Your task to perform on an android device: Add razer deathadder to the cart on costco, then select checkout. Image 0: 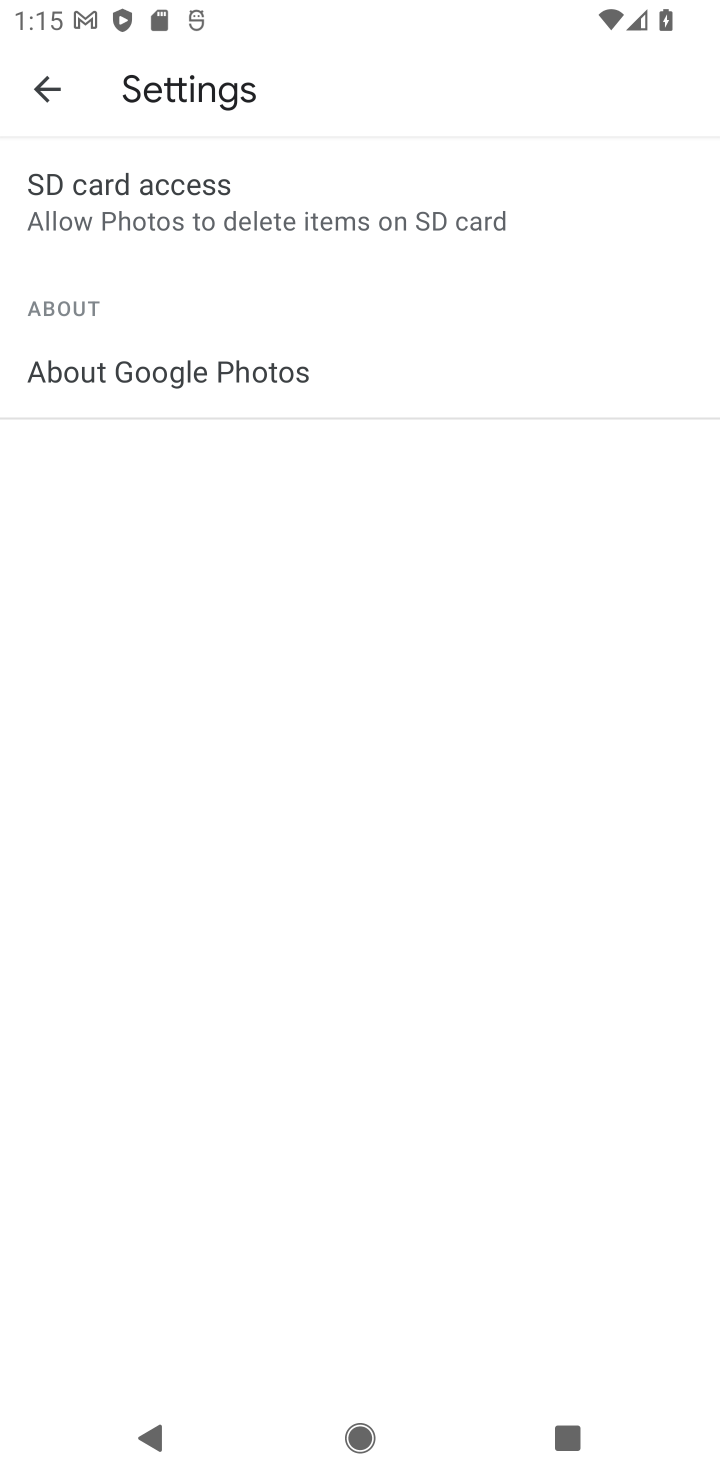
Step 0: press home button
Your task to perform on an android device: Add razer deathadder to the cart on costco, then select checkout. Image 1: 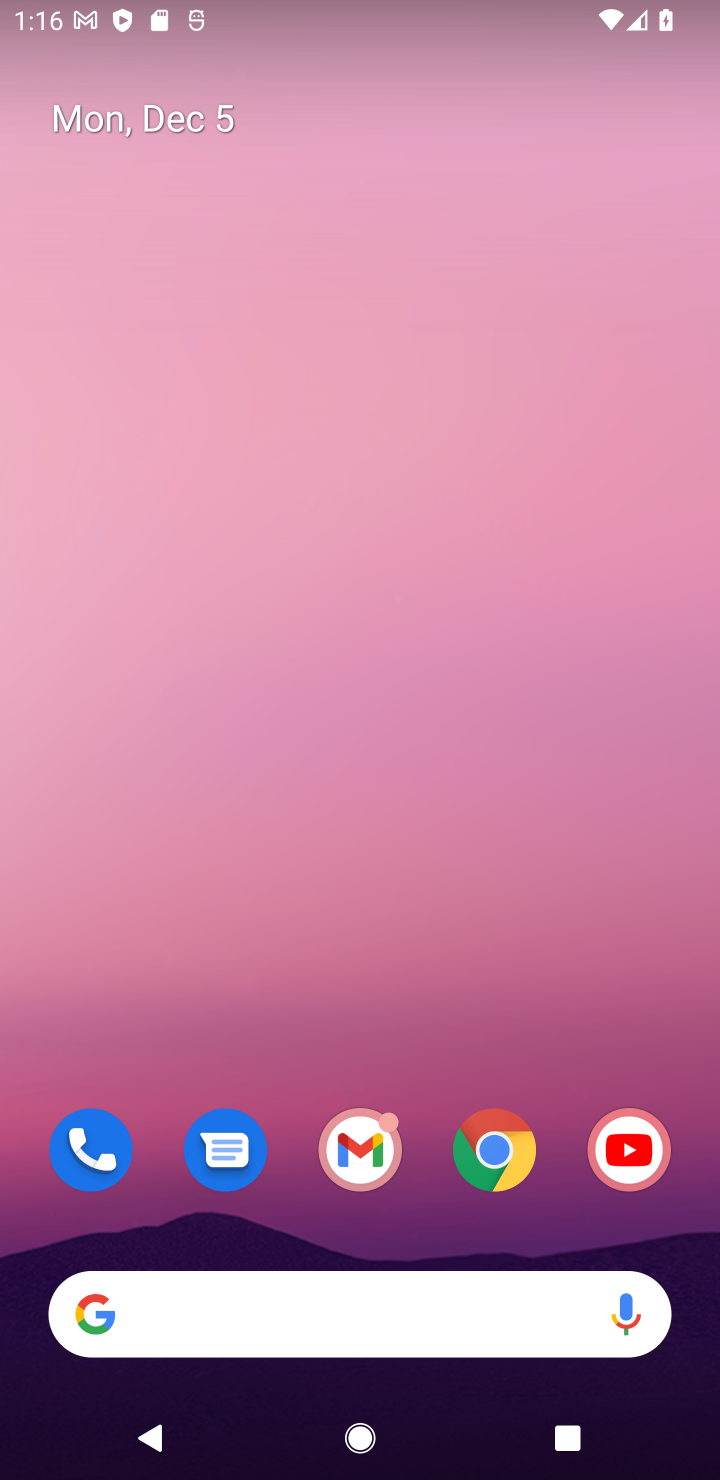
Step 1: click (496, 1138)
Your task to perform on an android device: Add razer deathadder to the cart on costco, then select checkout. Image 2: 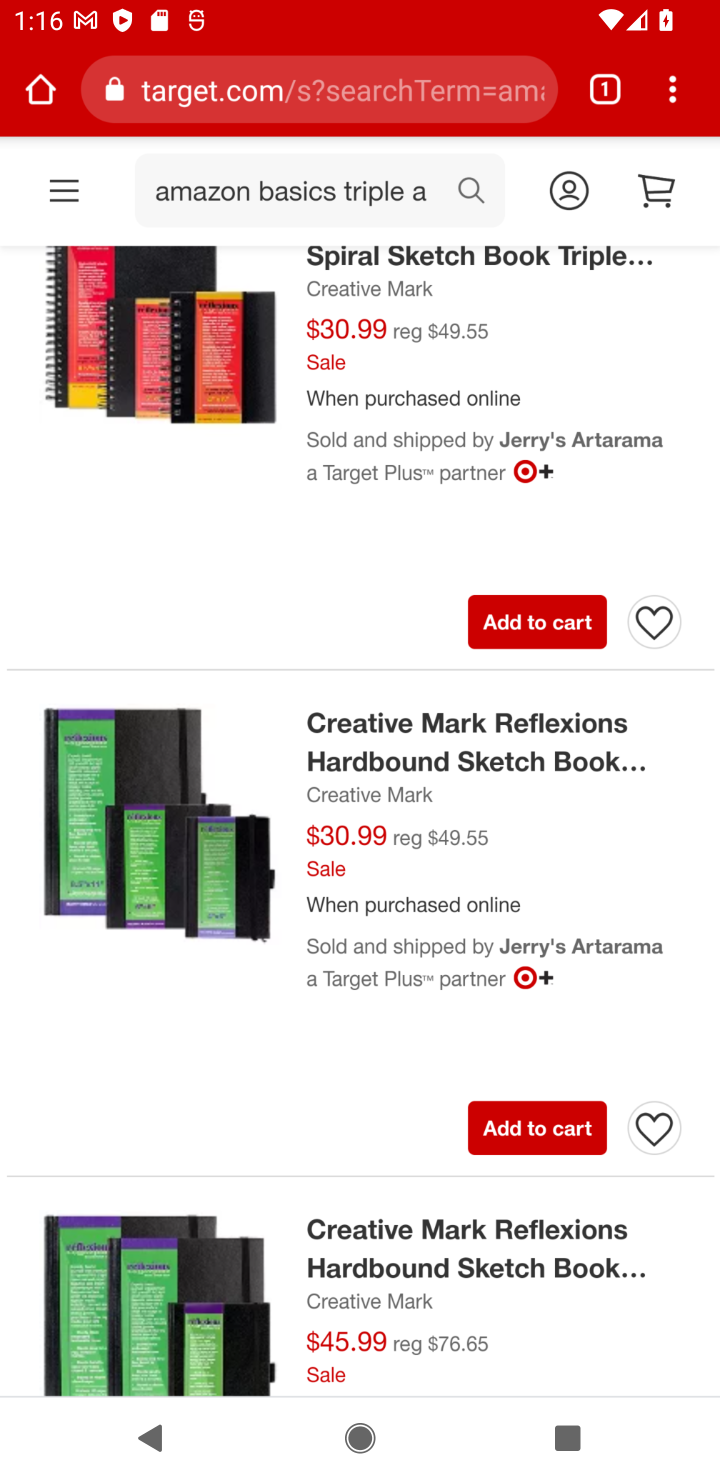
Step 2: click (501, 1154)
Your task to perform on an android device: Add razer deathadder to the cart on costco, then select checkout. Image 3: 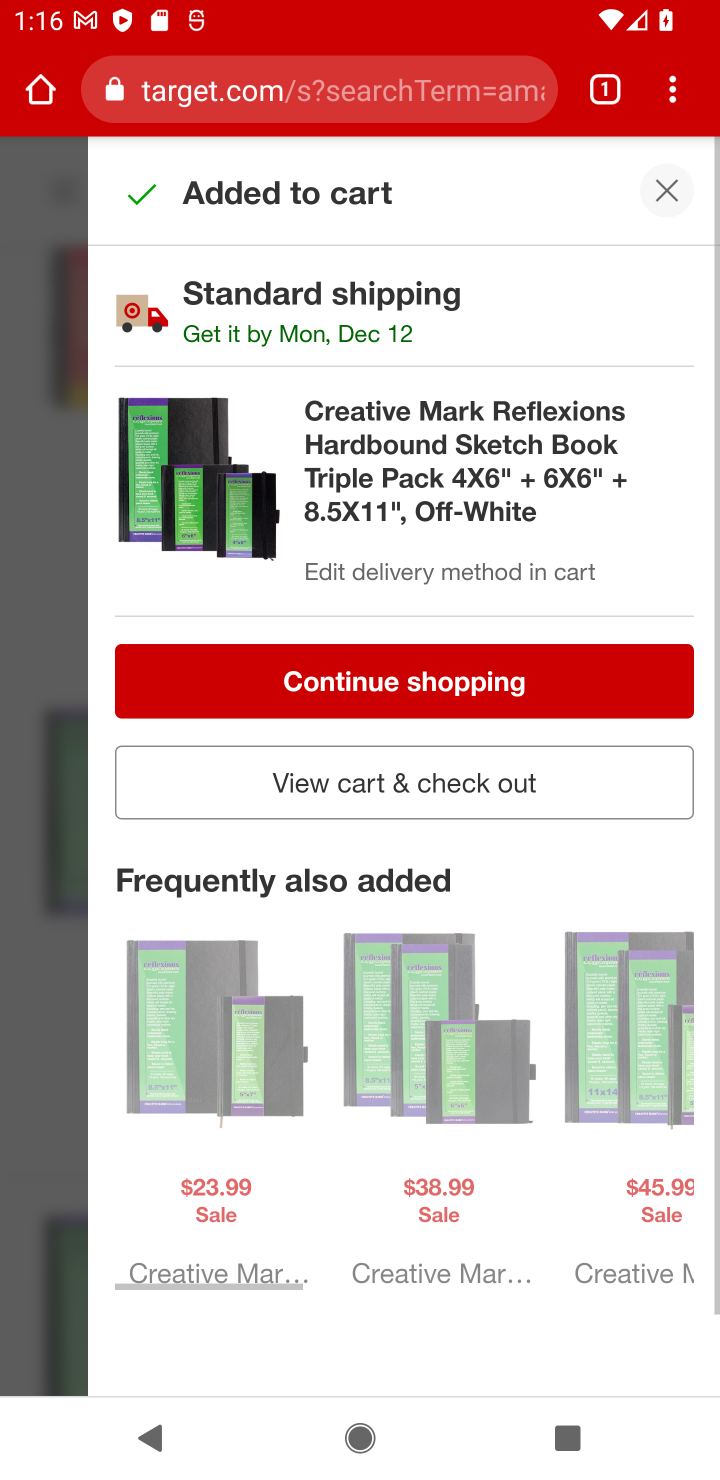
Step 3: click (640, 183)
Your task to perform on an android device: Add razer deathadder to the cart on costco, then select checkout. Image 4: 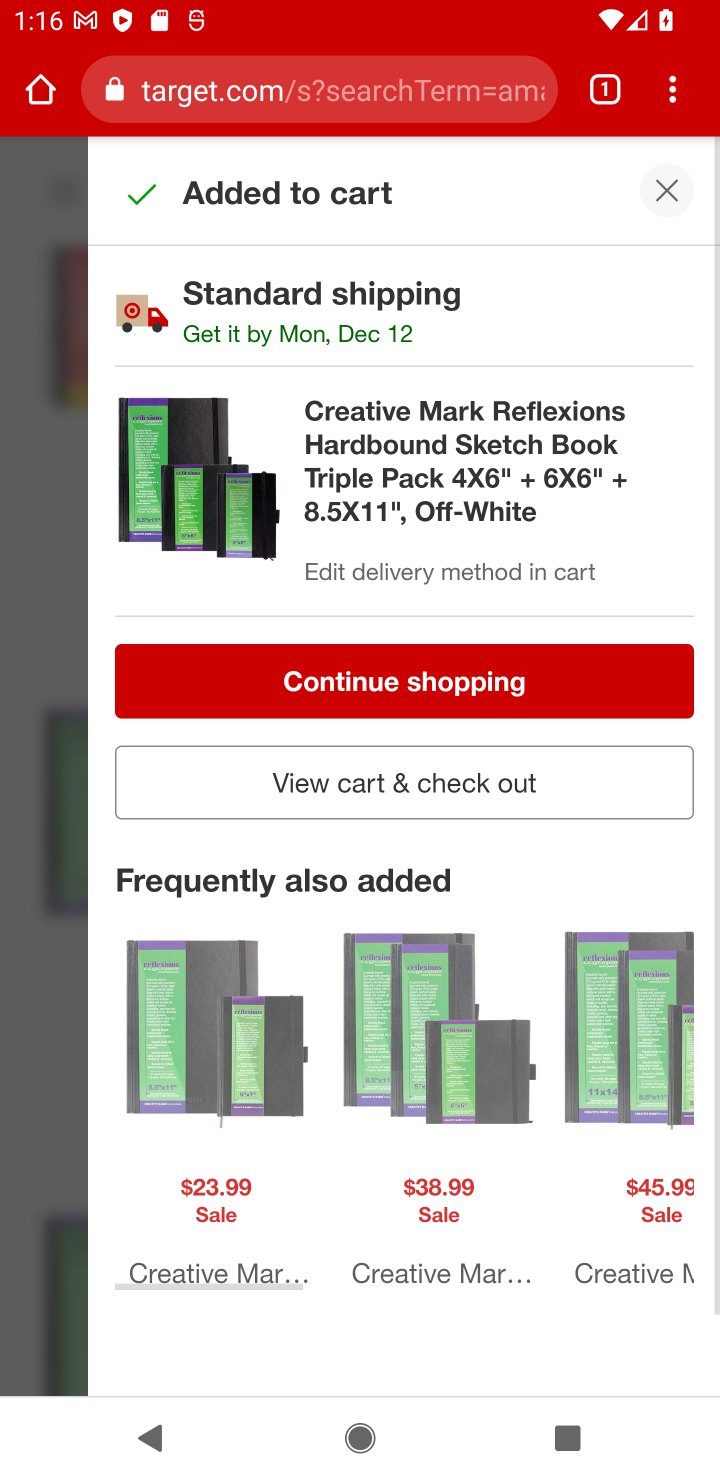
Step 4: click (306, 88)
Your task to perform on an android device: Add razer deathadder to the cart on costco, then select checkout. Image 5: 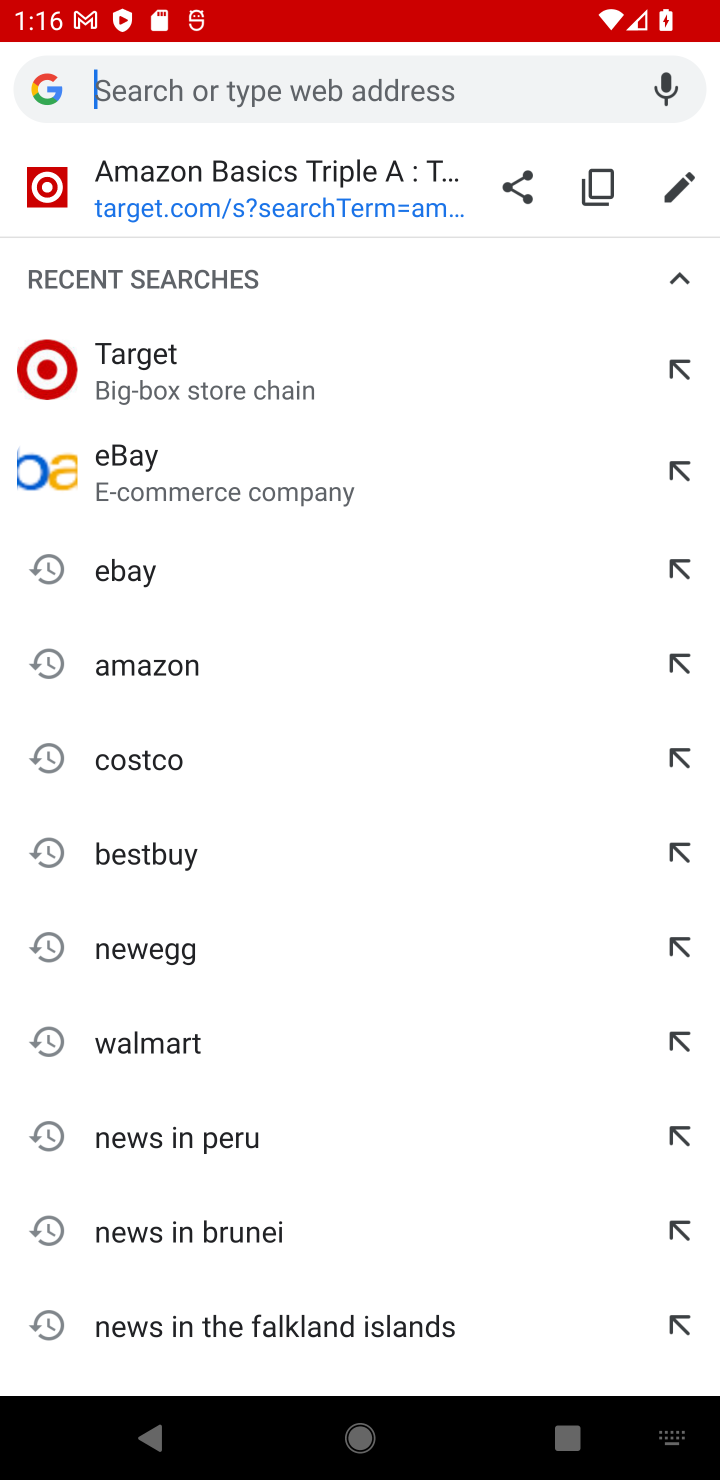
Step 5: click (169, 763)
Your task to perform on an android device: Add razer deathadder to the cart on costco, then select checkout. Image 6: 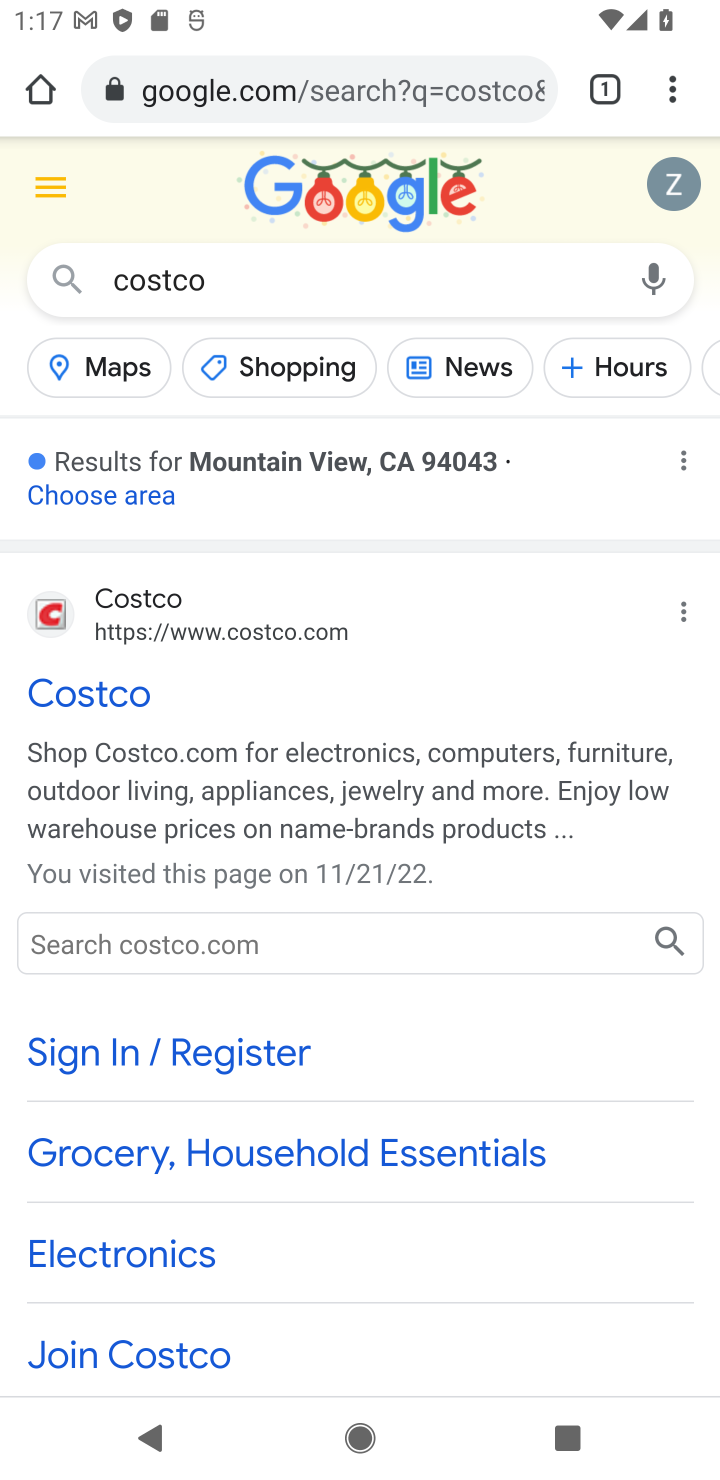
Step 6: click (229, 625)
Your task to perform on an android device: Add razer deathadder to the cart on costco, then select checkout. Image 7: 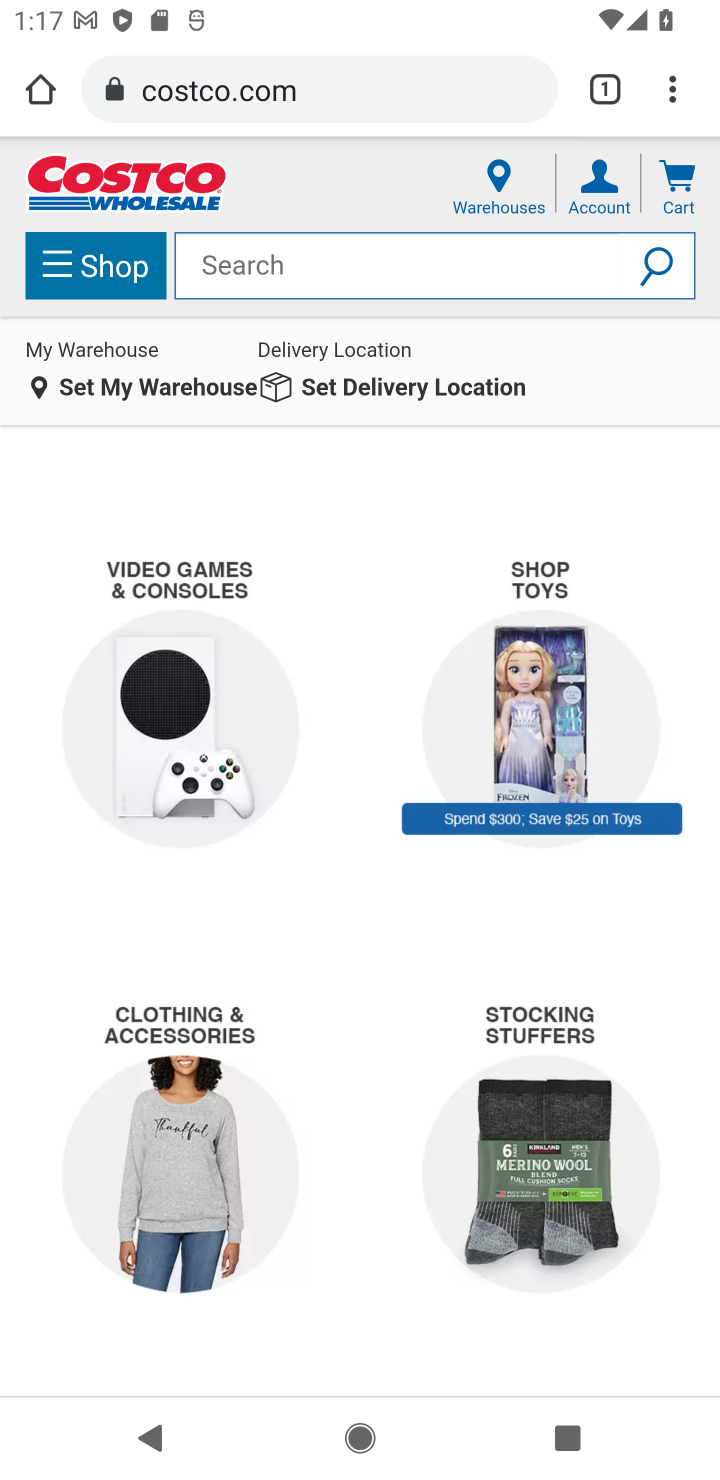
Step 7: click (456, 253)
Your task to perform on an android device: Add razer deathadder to the cart on costco, then select checkout. Image 8: 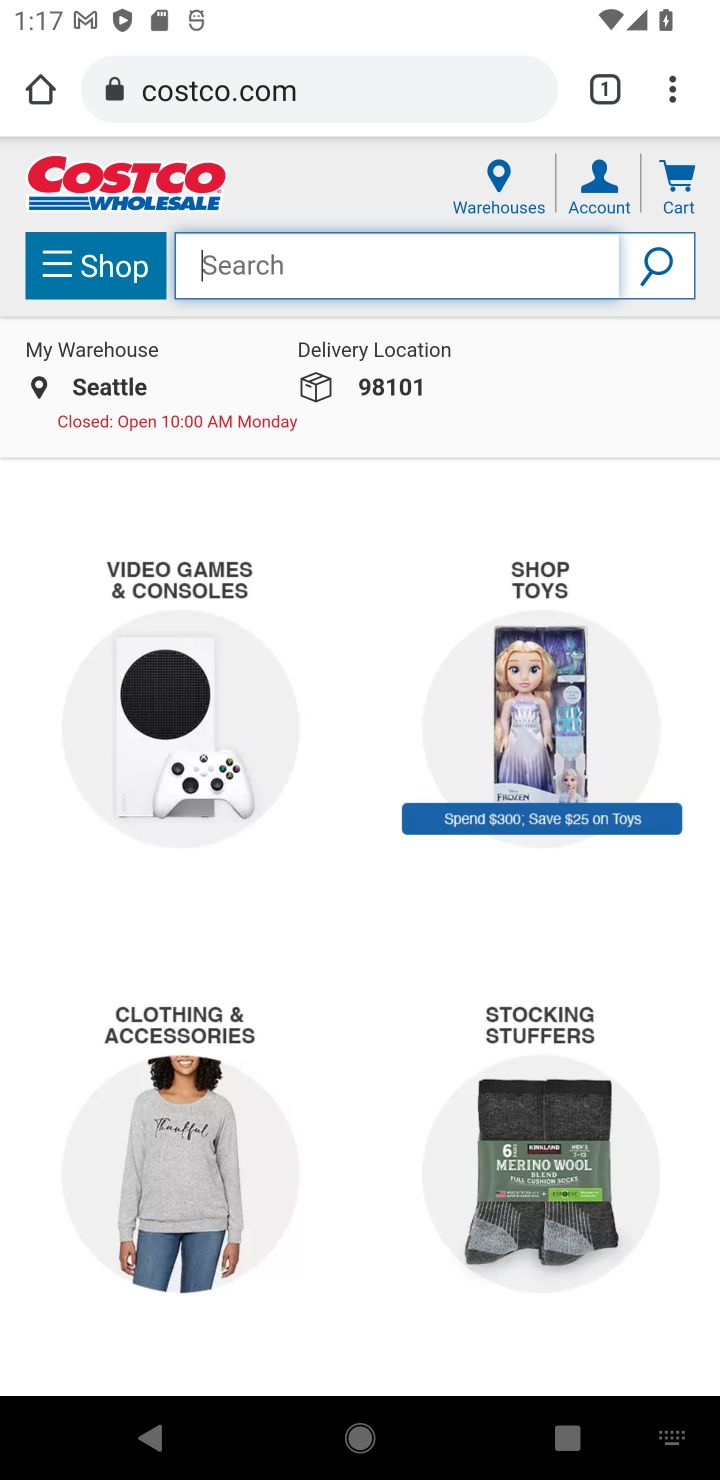
Step 8: type " razer deathadder"
Your task to perform on an android device: Add razer deathadder to the cart on costco, then select checkout. Image 9: 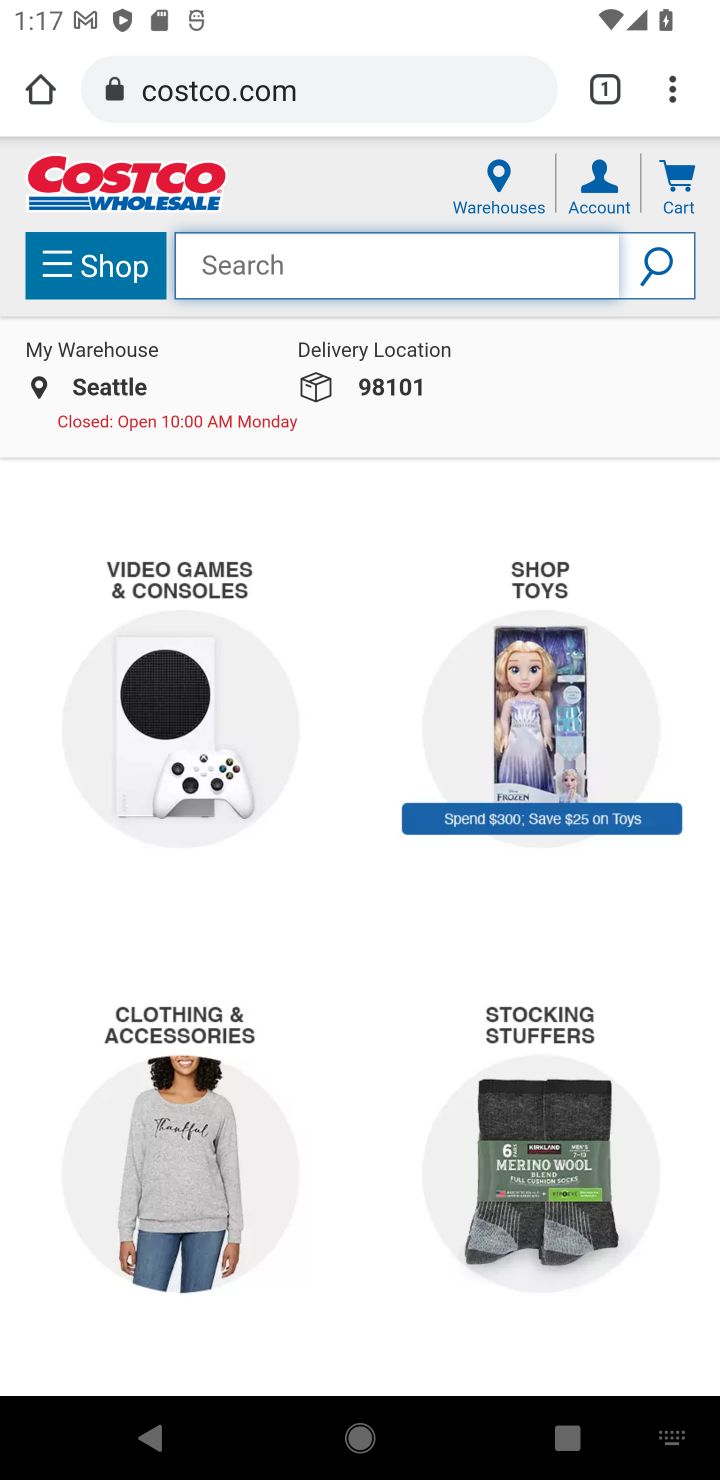
Step 9: press enter
Your task to perform on an android device: Add razer deathadder to the cart on costco, then select checkout. Image 10: 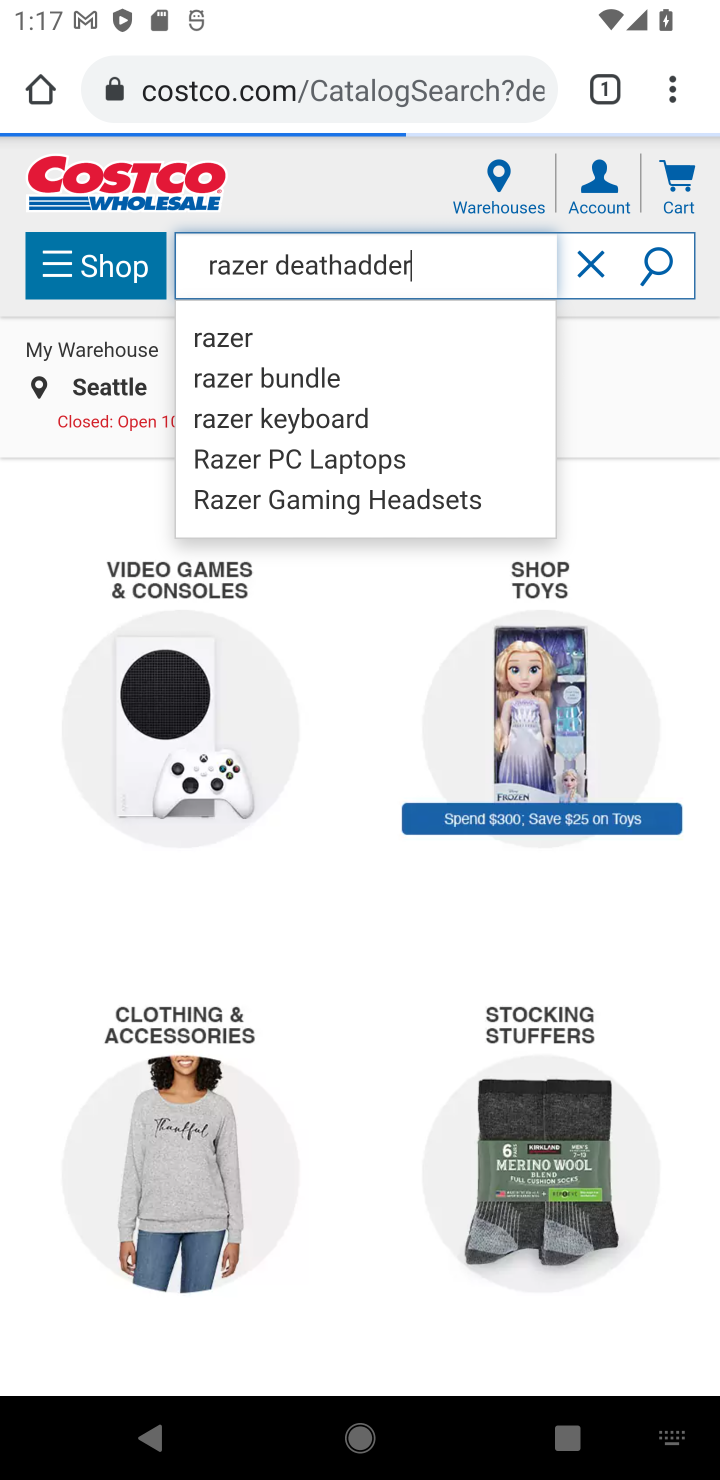
Step 10: click (670, 268)
Your task to perform on an android device: Add razer deathadder to the cart on costco, then select checkout. Image 11: 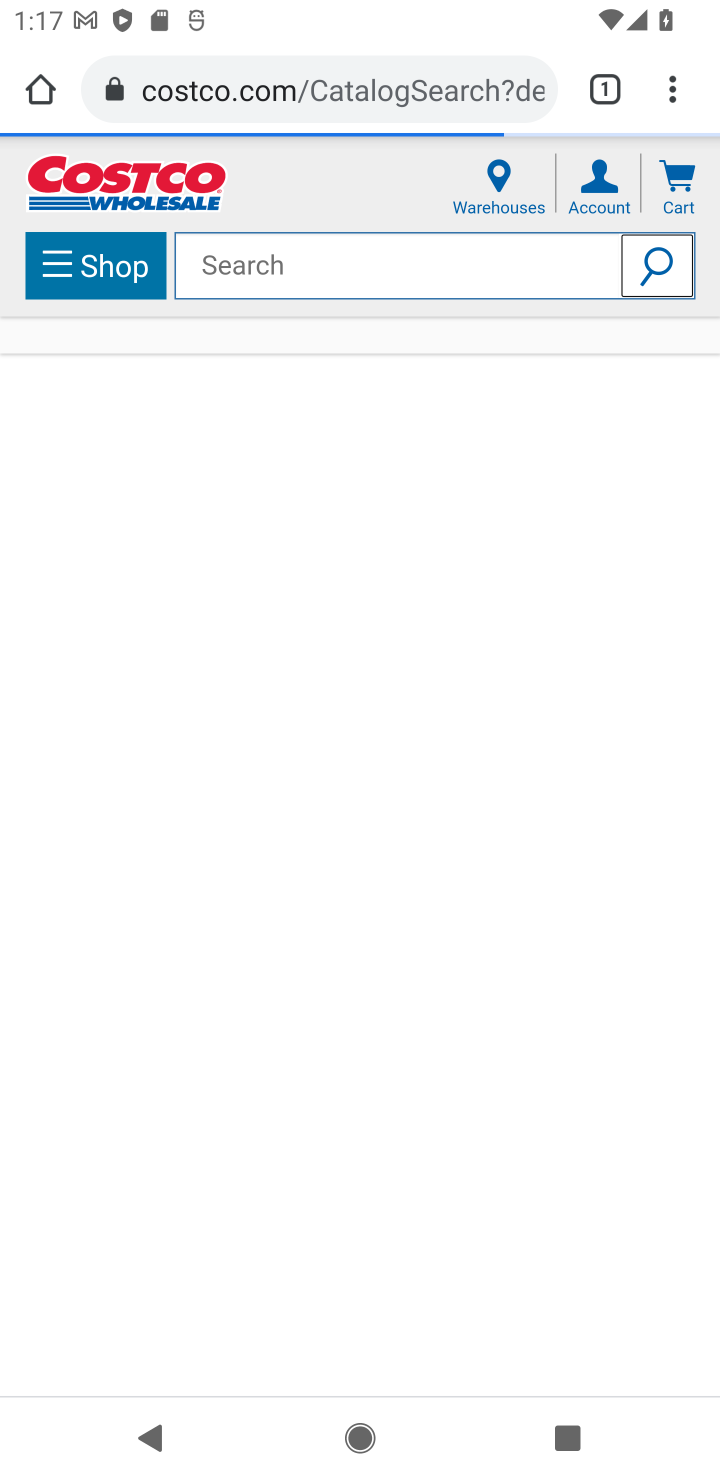
Step 11: task complete